Your task to perform on an android device: change timer sound Image 0: 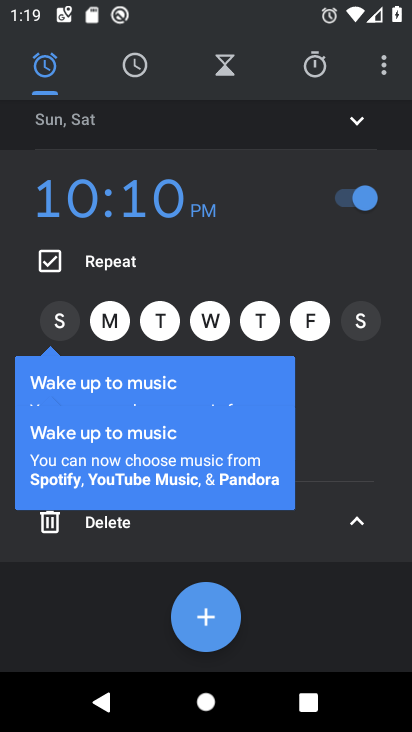
Step 0: press home button
Your task to perform on an android device: change timer sound Image 1: 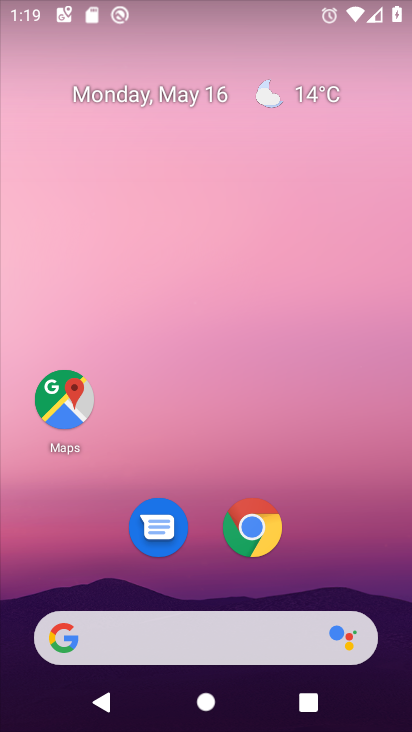
Step 1: drag from (200, 589) to (235, 214)
Your task to perform on an android device: change timer sound Image 2: 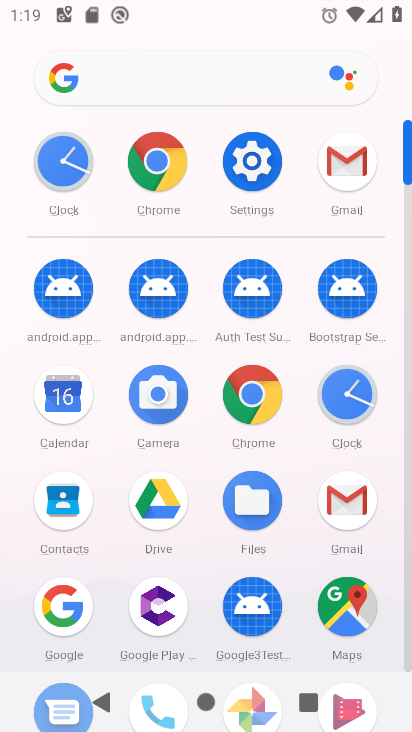
Step 2: click (352, 408)
Your task to perform on an android device: change timer sound Image 3: 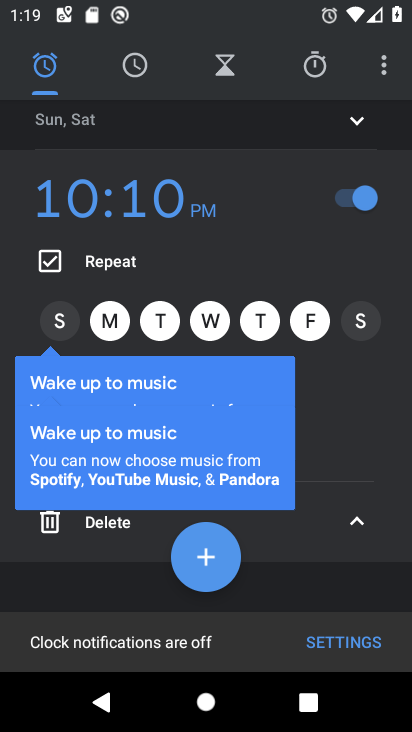
Step 3: click (383, 73)
Your task to perform on an android device: change timer sound Image 4: 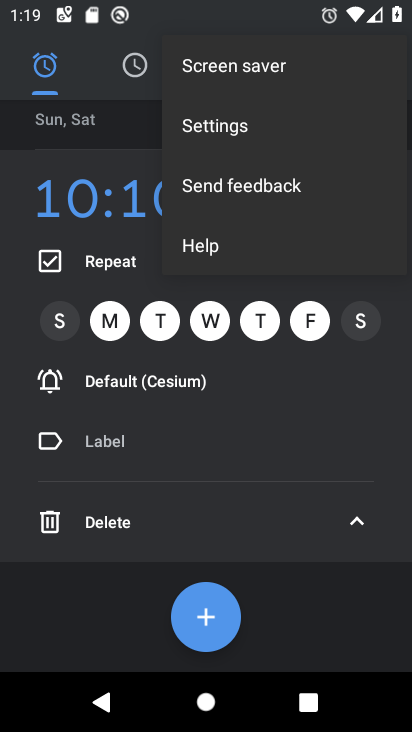
Step 4: click (225, 130)
Your task to perform on an android device: change timer sound Image 5: 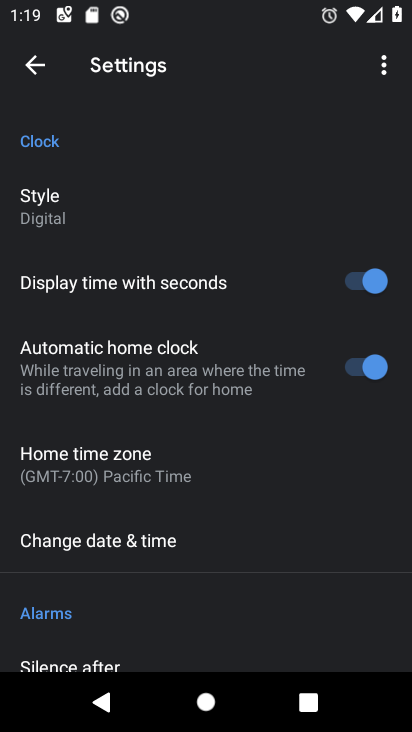
Step 5: drag from (117, 486) to (165, 283)
Your task to perform on an android device: change timer sound Image 6: 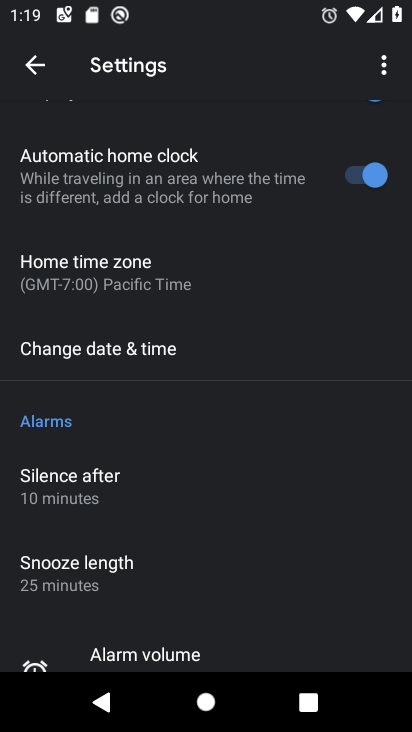
Step 6: drag from (157, 531) to (244, 113)
Your task to perform on an android device: change timer sound Image 7: 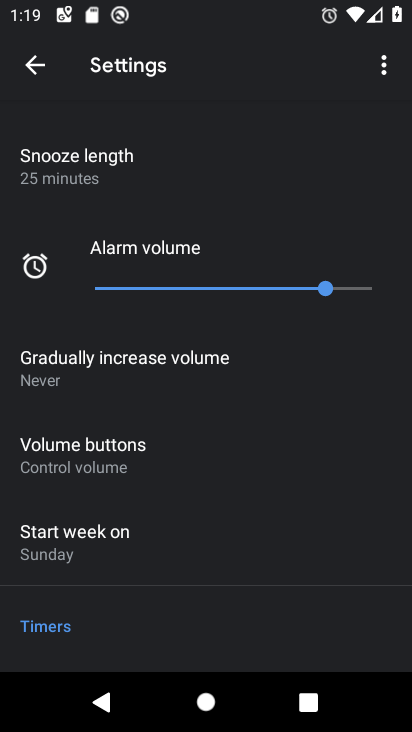
Step 7: drag from (201, 528) to (256, 166)
Your task to perform on an android device: change timer sound Image 8: 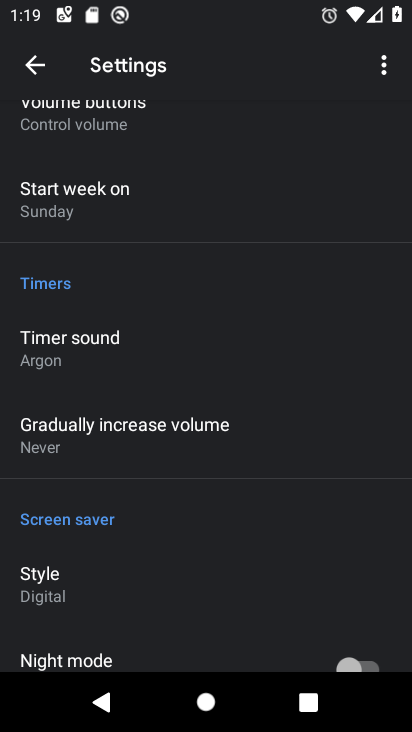
Step 8: click (116, 358)
Your task to perform on an android device: change timer sound Image 9: 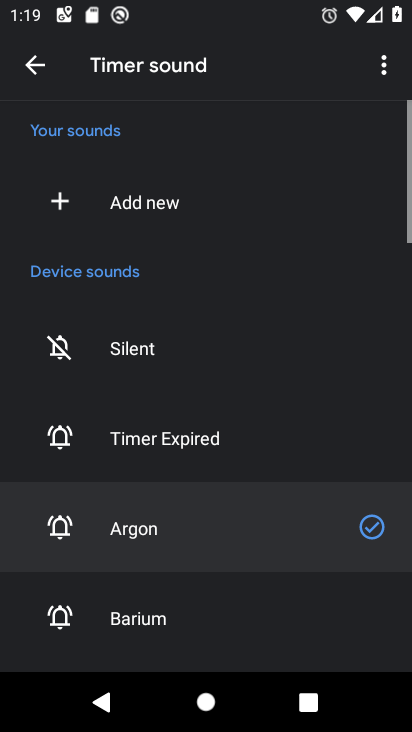
Step 9: click (176, 621)
Your task to perform on an android device: change timer sound Image 10: 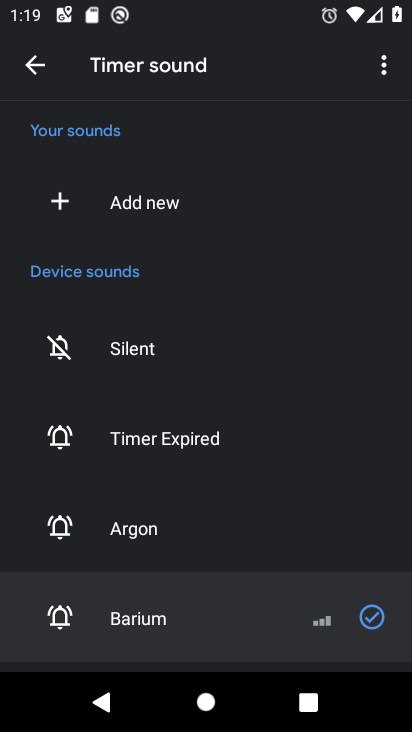
Step 10: task complete